Your task to perform on an android device: turn on data saver in the chrome app Image 0: 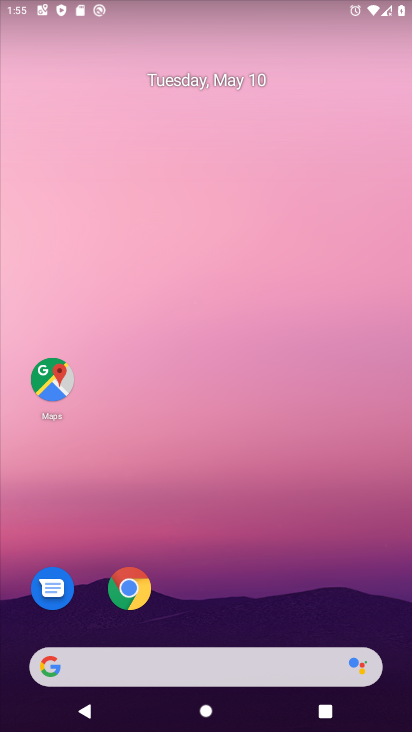
Step 0: drag from (299, 573) to (268, 275)
Your task to perform on an android device: turn on data saver in the chrome app Image 1: 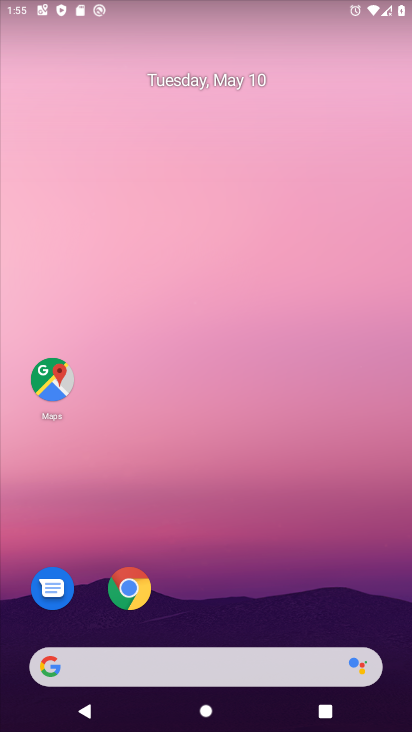
Step 1: drag from (233, 558) to (242, 286)
Your task to perform on an android device: turn on data saver in the chrome app Image 2: 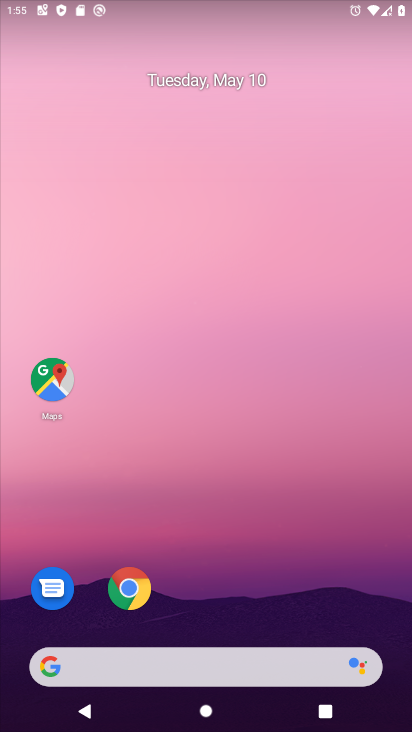
Step 2: drag from (210, 644) to (210, 269)
Your task to perform on an android device: turn on data saver in the chrome app Image 3: 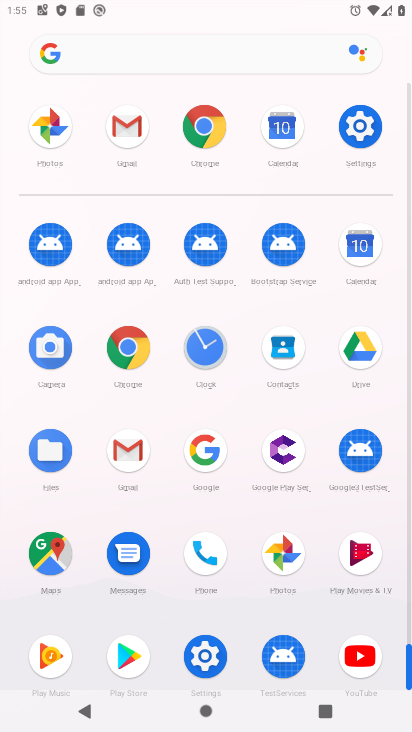
Step 3: click (204, 119)
Your task to perform on an android device: turn on data saver in the chrome app Image 4: 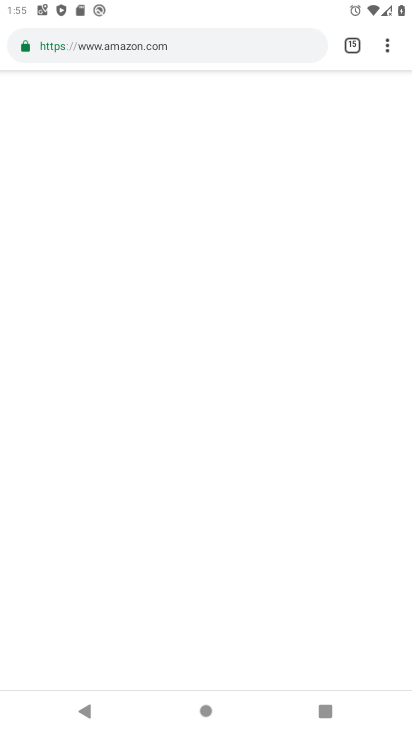
Step 4: click (379, 44)
Your task to perform on an android device: turn on data saver in the chrome app Image 5: 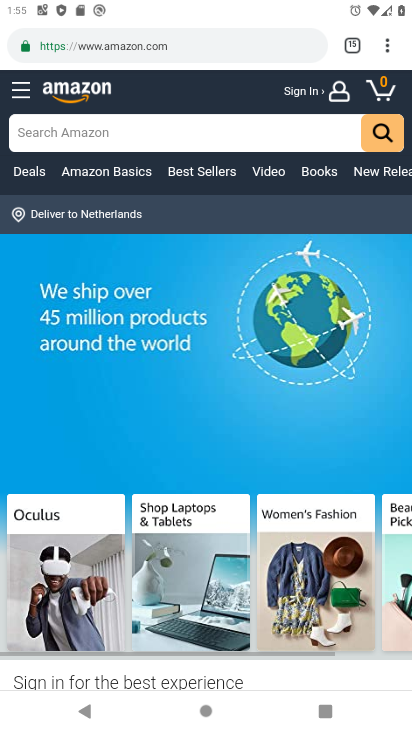
Step 5: click (381, 47)
Your task to perform on an android device: turn on data saver in the chrome app Image 6: 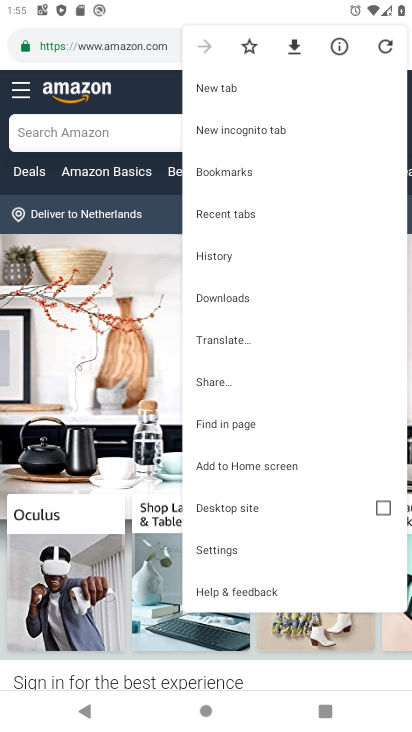
Step 6: click (238, 543)
Your task to perform on an android device: turn on data saver in the chrome app Image 7: 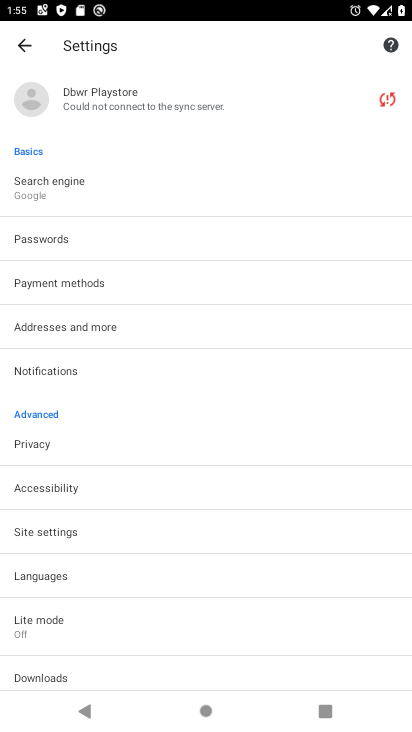
Step 7: click (82, 630)
Your task to perform on an android device: turn on data saver in the chrome app Image 8: 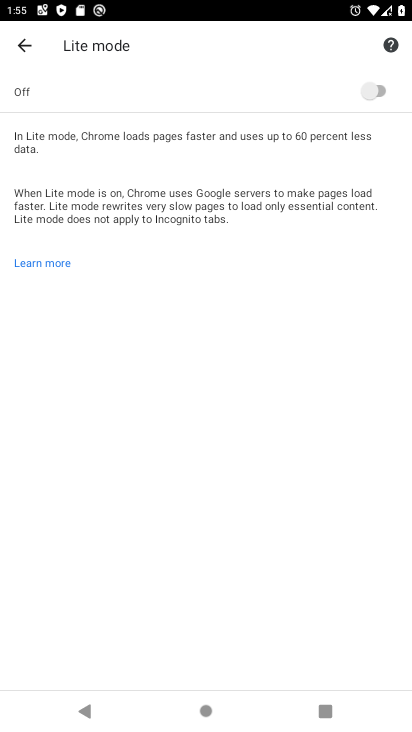
Step 8: click (368, 89)
Your task to perform on an android device: turn on data saver in the chrome app Image 9: 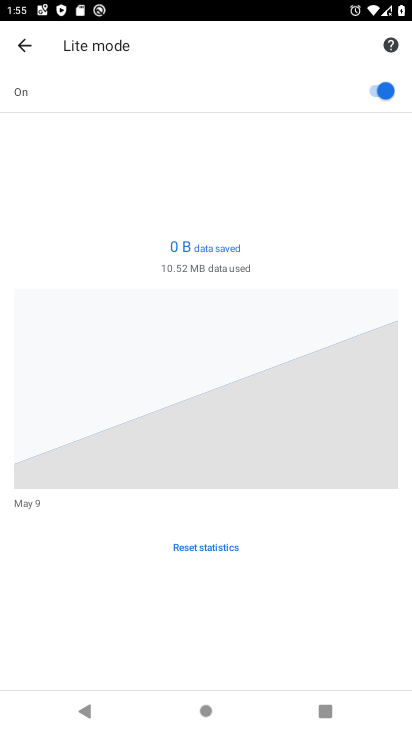
Step 9: task complete